Your task to perform on an android device: turn off notifications settings in the gmail app Image 0: 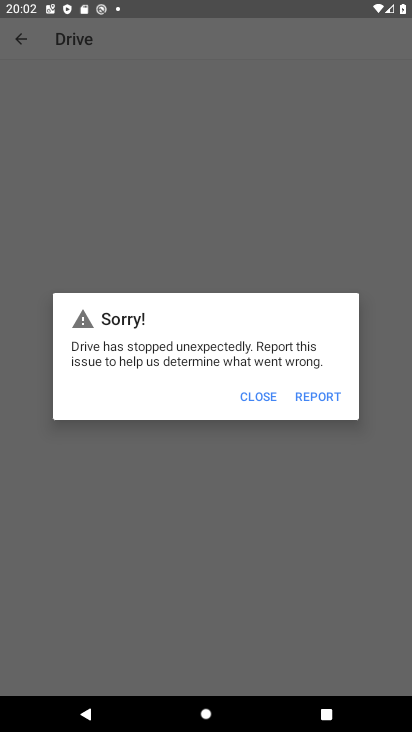
Step 0: press home button
Your task to perform on an android device: turn off notifications settings in the gmail app Image 1: 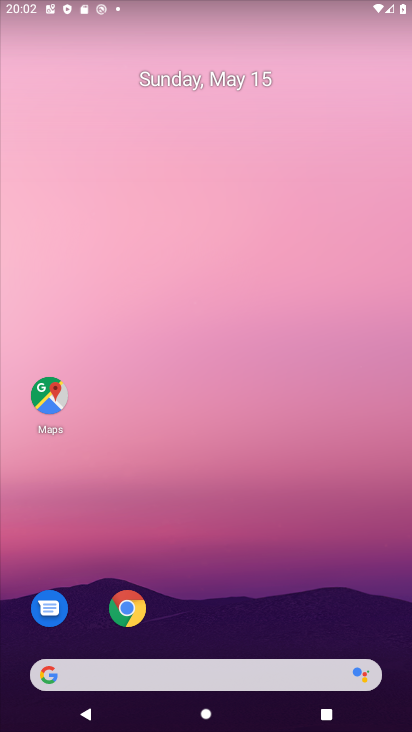
Step 1: drag from (172, 598) to (202, 58)
Your task to perform on an android device: turn off notifications settings in the gmail app Image 2: 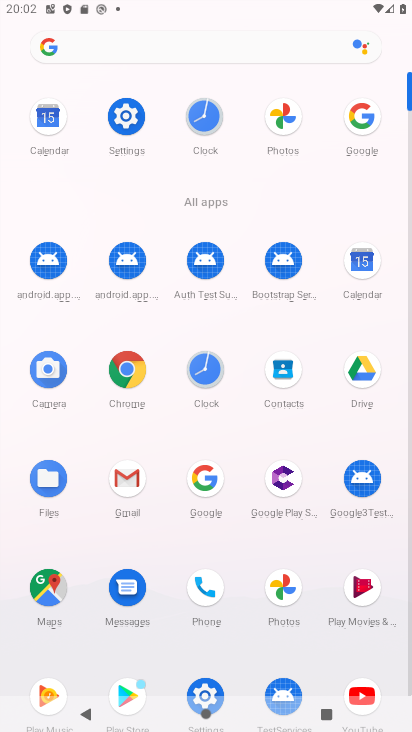
Step 2: click (124, 472)
Your task to perform on an android device: turn off notifications settings in the gmail app Image 3: 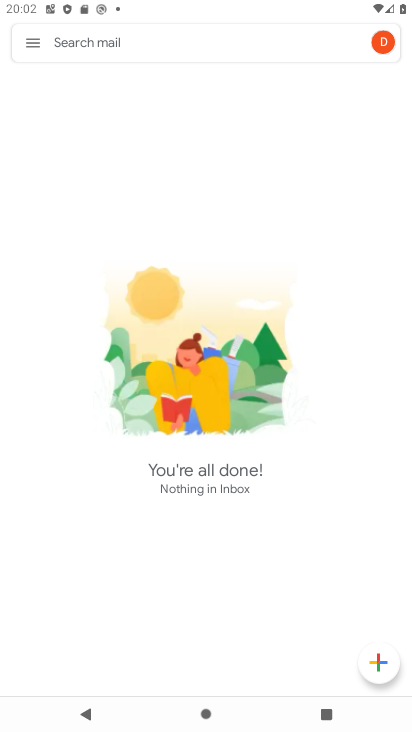
Step 3: click (31, 32)
Your task to perform on an android device: turn off notifications settings in the gmail app Image 4: 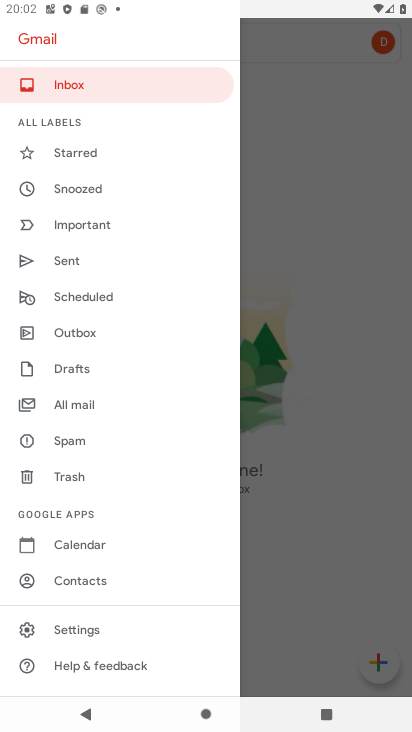
Step 4: click (60, 627)
Your task to perform on an android device: turn off notifications settings in the gmail app Image 5: 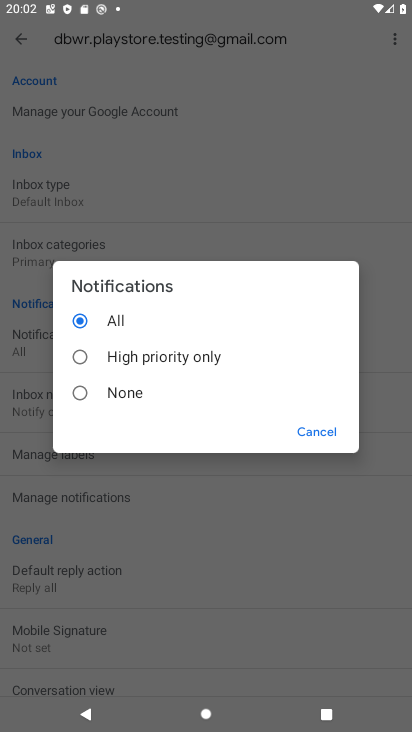
Step 5: click (113, 396)
Your task to perform on an android device: turn off notifications settings in the gmail app Image 6: 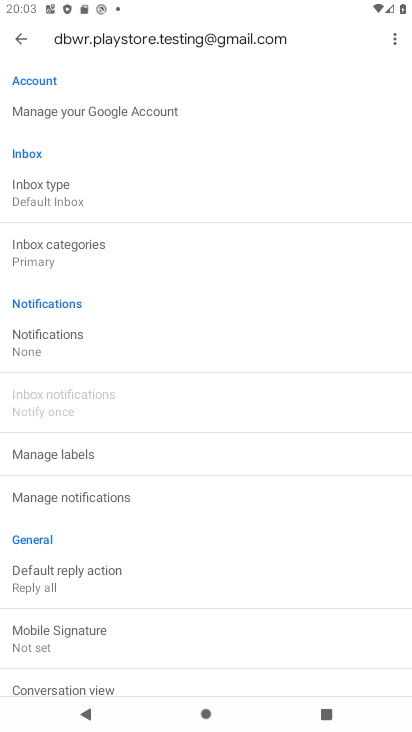
Step 6: task complete